Your task to perform on an android device: View the shopping cart on bestbuy. Search for macbook air on bestbuy, select the first entry, and add it to the cart. Image 0: 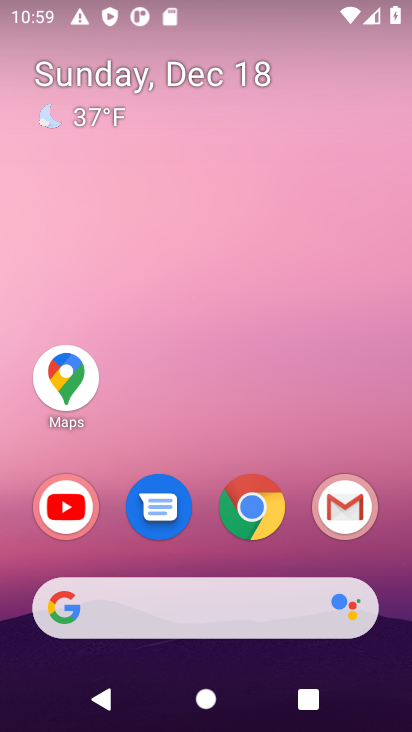
Step 0: click (248, 512)
Your task to perform on an android device: View the shopping cart on bestbuy. Search for macbook air on bestbuy, select the first entry, and add it to the cart. Image 1: 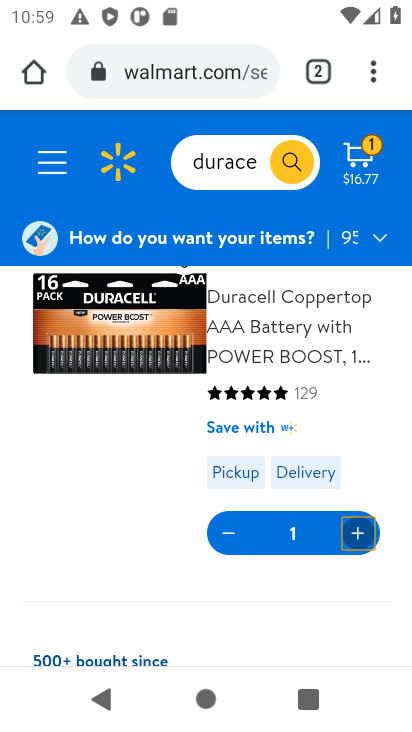
Step 1: click (160, 72)
Your task to perform on an android device: View the shopping cart on bestbuy. Search for macbook air on bestbuy, select the first entry, and add it to the cart. Image 2: 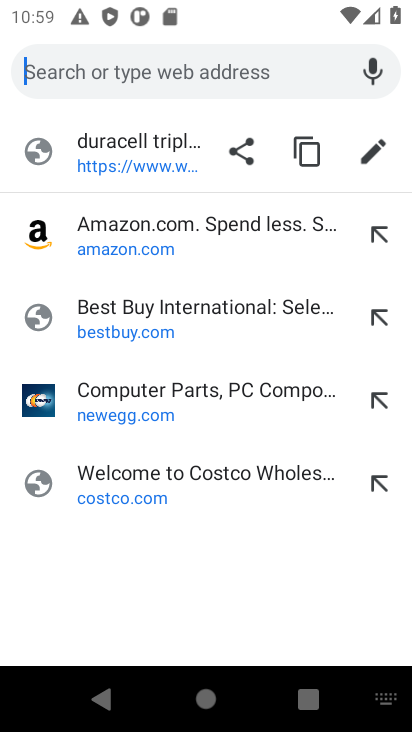
Step 2: click (108, 333)
Your task to perform on an android device: View the shopping cart on bestbuy. Search for macbook air on bestbuy, select the first entry, and add it to the cart. Image 3: 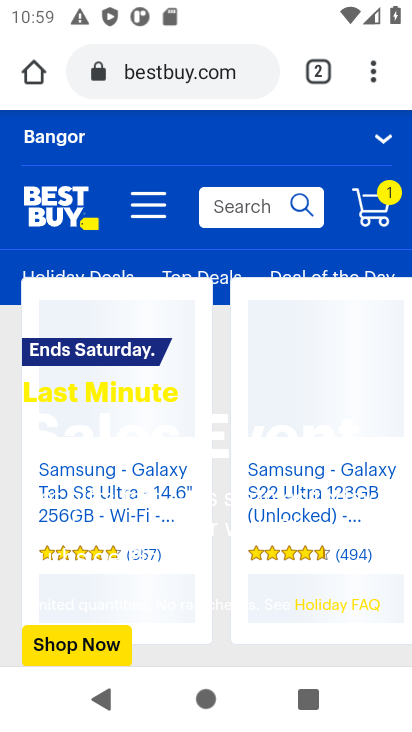
Step 3: click (373, 210)
Your task to perform on an android device: View the shopping cart on bestbuy. Search for macbook air on bestbuy, select the first entry, and add it to the cart. Image 4: 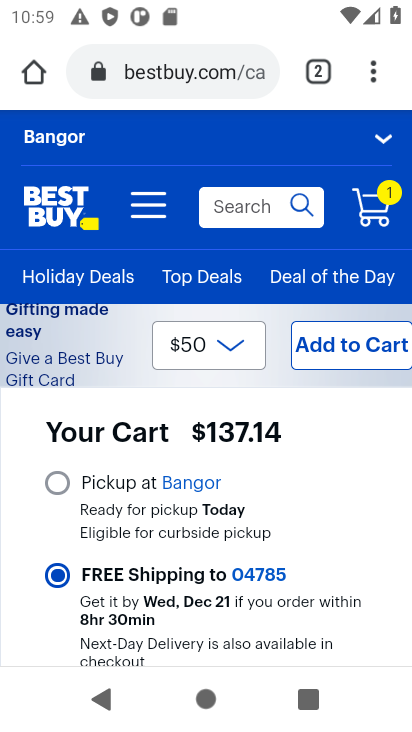
Step 4: drag from (304, 555) to (324, 232)
Your task to perform on an android device: View the shopping cart on bestbuy. Search for macbook air on bestbuy, select the first entry, and add it to the cart. Image 5: 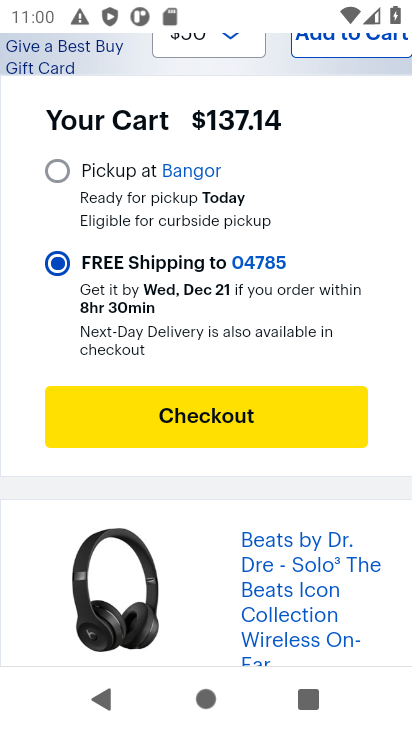
Step 5: drag from (334, 211) to (374, 567)
Your task to perform on an android device: View the shopping cart on bestbuy. Search for macbook air on bestbuy, select the first entry, and add it to the cart. Image 6: 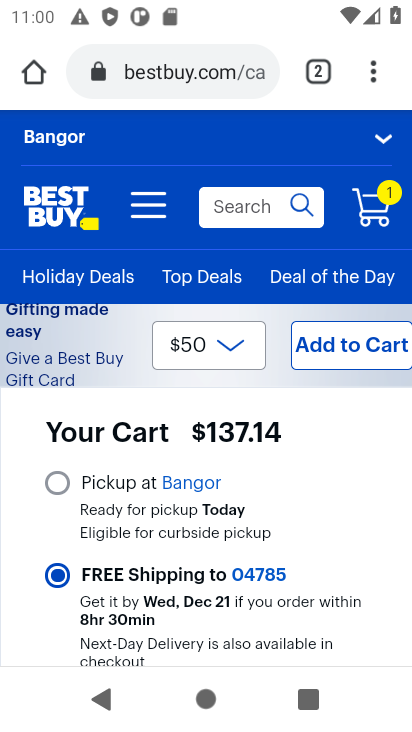
Step 6: click (224, 209)
Your task to perform on an android device: View the shopping cart on bestbuy. Search for macbook air on bestbuy, select the first entry, and add it to the cart. Image 7: 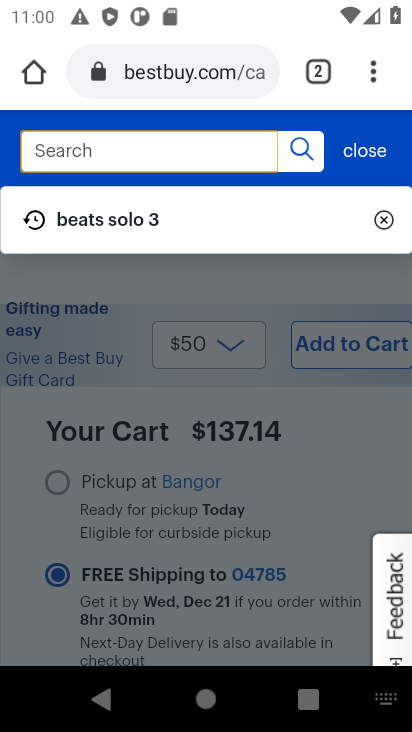
Step 7: type "macbook air"
Your task to perform on an android device: View the shopping cart on bestbuy. Search for macbook air on bestbuy, select the first entry, and add it to the cart. Image 8: 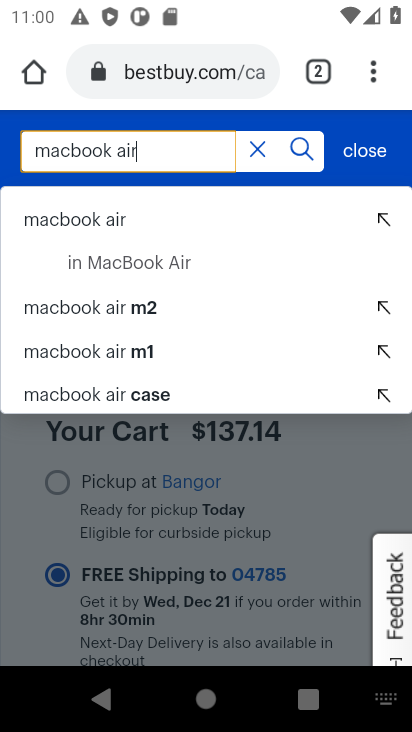
Step 8: click (69, 223)
Your task to perform on an android device: View the shopping cart on bestbuy. Search for macbook air on bestbuy, select the first entry, and add it to the cart. Image 9: 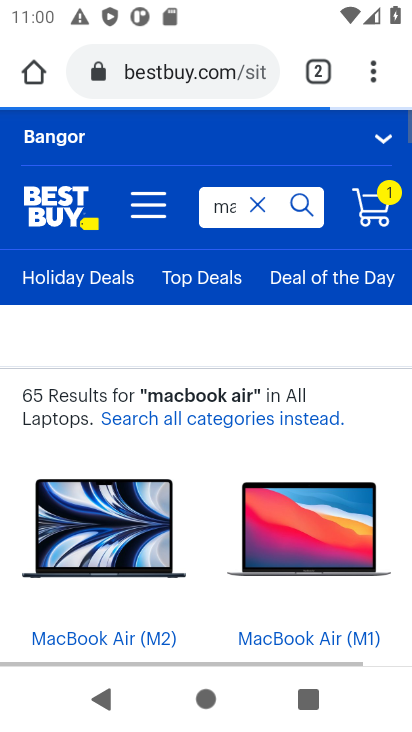
Step 9: drag from (176, 453) to (174, 197)
Your task to perform on an android device: View the shopping cart on bestbuy. Search for macbook air on bestbuy, select the first entry, and add it to the cart. Image 10: 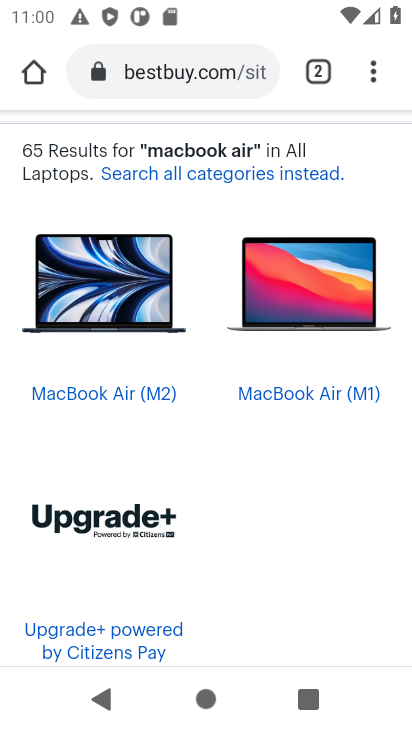
Step 10: drag from (177, 490) to (174, 127)
Your task to perform on an android device: View the shopping cart on bestbuy. Search for macbook air on bestbuy, select the first entry, and add it to the cart. Image 11: 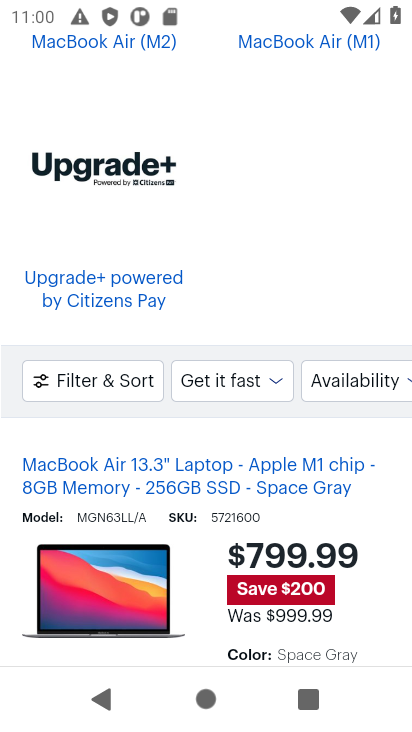
Step 11: drag from (192, 425) to (174, 204)
Your task to perform on an android device: View the shopping cart on bestbuy. Search for macbook air on bestbuy, select the first entry, and add it to the cart. Image 12: 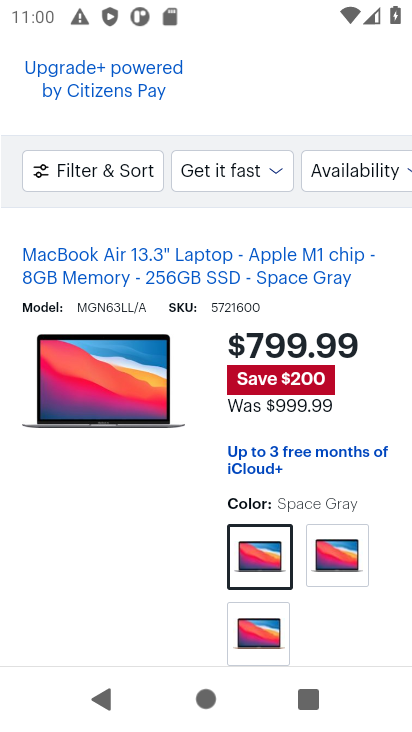
Step 12: drag from (168, 468) to (159, 239)
Your task to perform on an android device: View the shopping cart on bestbuy. Search for macbook air on bestbuy, select the first entry, and add it to the cart. Image 13: 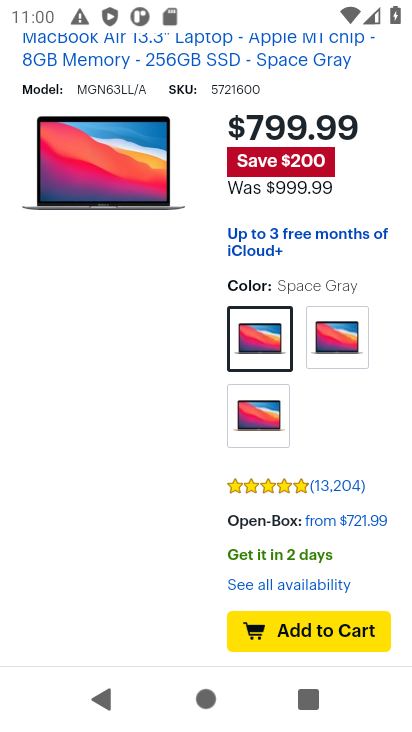
Step 13: click (268, 625)
Your task to perform on an android device: View the shopping cart on bestbuy. Search for macbook air on bestbuy, select the first entry, and add it to the cart. Image 14: 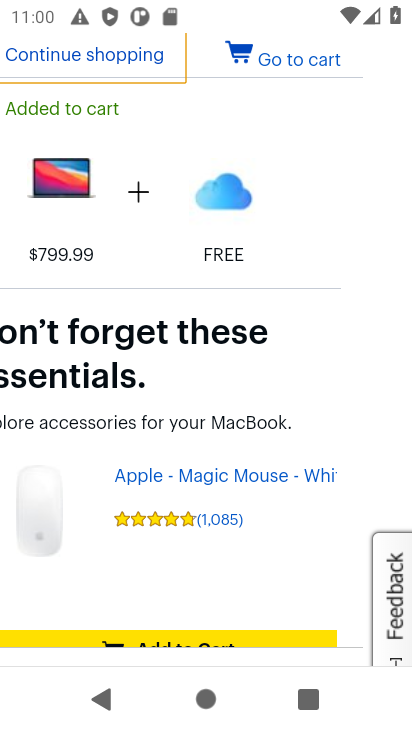
Step 14: task complete